Your task to perform on an android device: Do I have any events this weekend? Image 0: 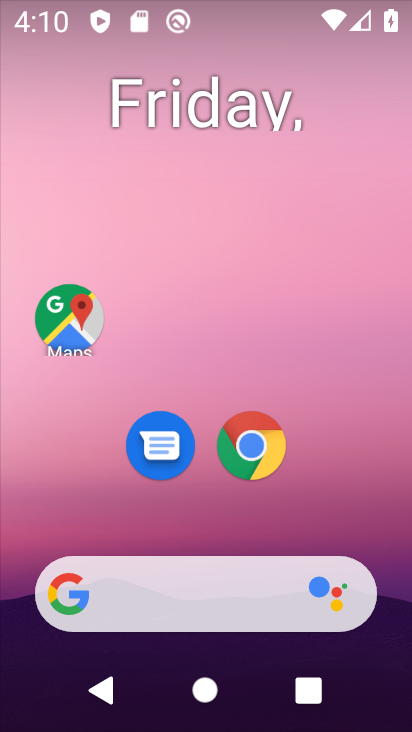
Step 0: drag from (329, 461) to (306, 129)
Your task to perform on an android device: Do I have any events this weekend? Image 1: 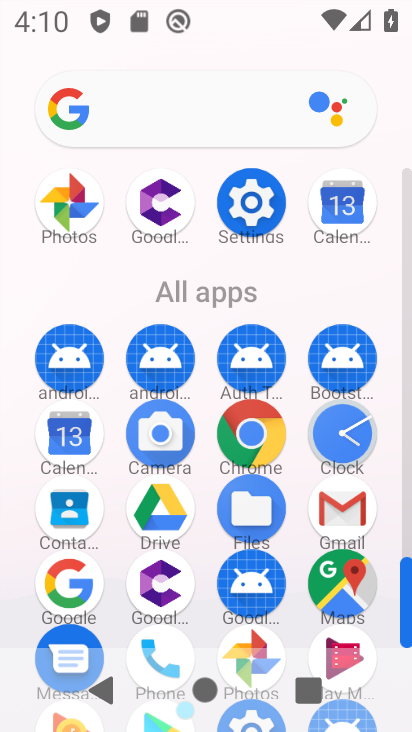
Step 1: click (57, 425)
Your task to perform on an android device: Do I have any events this weekend? Image 2: 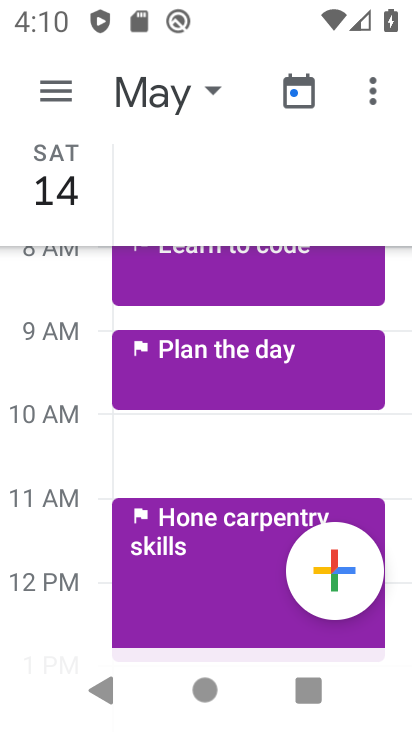
Step 2: click (73, 99)
Your task to perform on an android device: Do I have any events this weekend? Image 3: 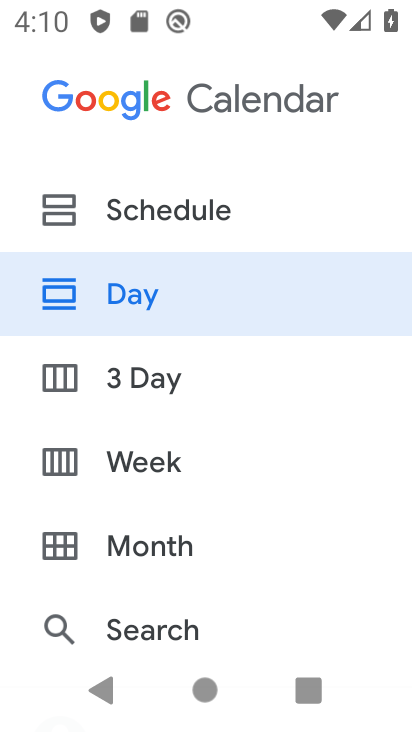
Step 3: click (143, 466)
Your task to perform on an android device: Do I have any events this weekend? Image 4: 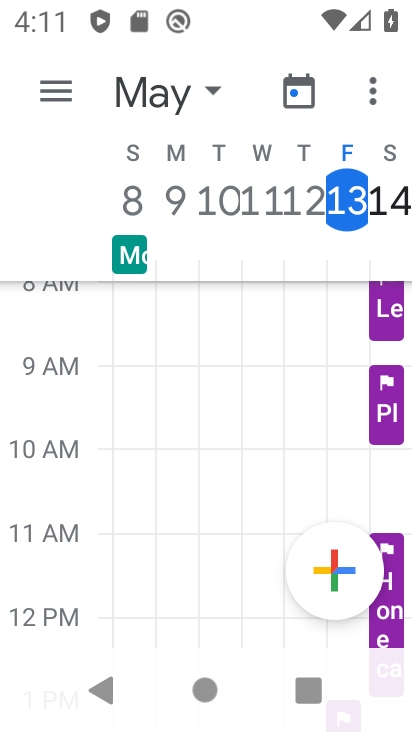
Step 4: click (380, 192)
Your task to perform on an android device: Do I have any events this weekend? Image 5: 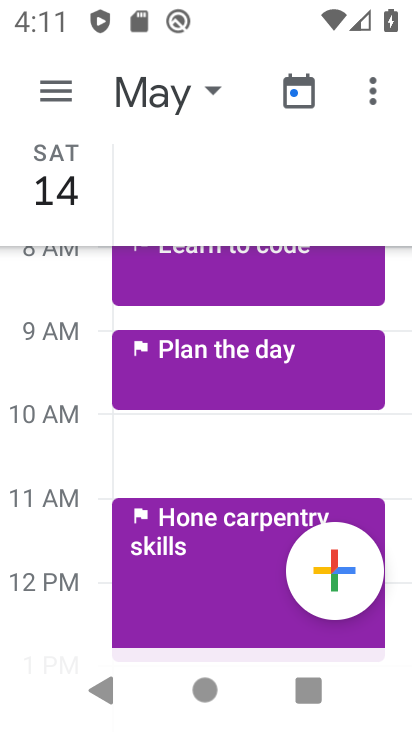
Step 5: task complete